Your task to perform on an android device: Open Chrome and go to settings Image 0: 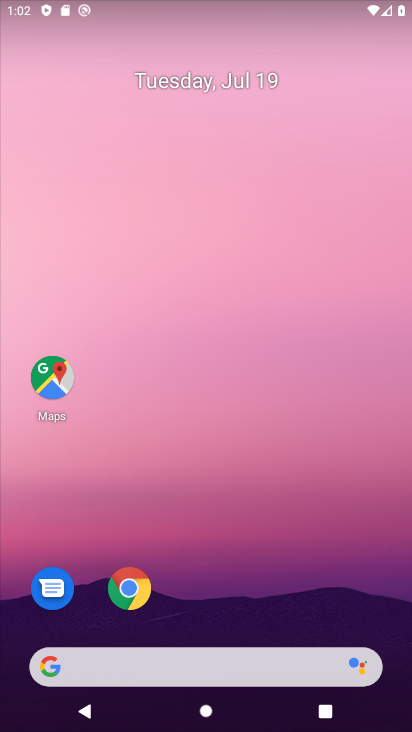
Step 0: drag from (208, 628) to (157, 96)
Your task to perform on an android device: Open Chrome and go to settings Image 1: 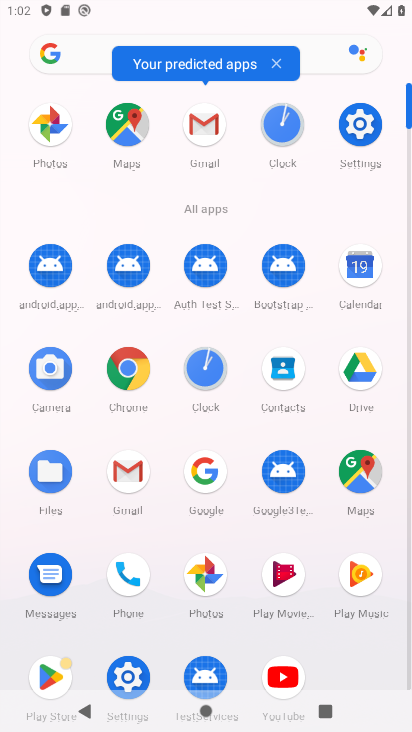
Step 1: click (125, 369)
Your task to perform on an android device: Open Chrome and go to settings Image 2: 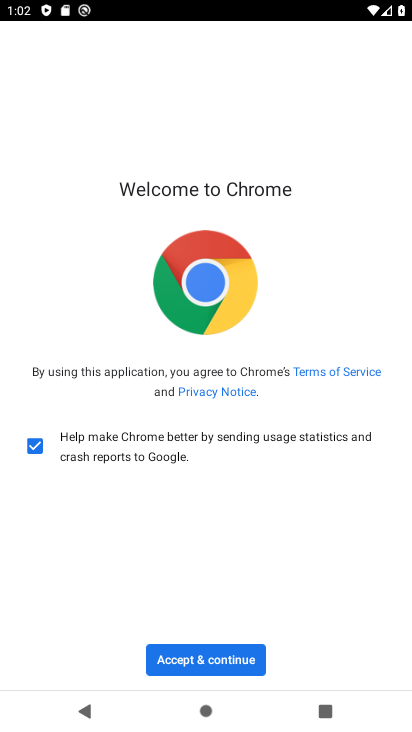
Step 2: click (230, 667)
Your task to perform on an android device: Open Chrome and go to settings Image 3: 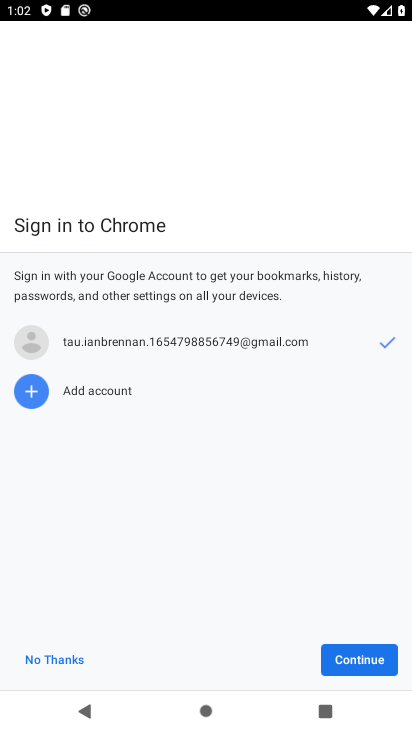
Step 3: click (366, 665)
Your task to perform on an android device: Open Chrome and go to settings Image 4: 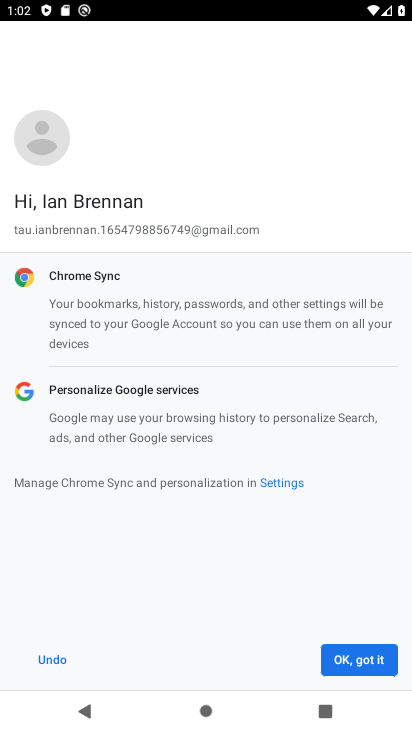
Step 4: click (366, 665)
Your task to perform on an android device: Open Chrome and go to settings Image 5: 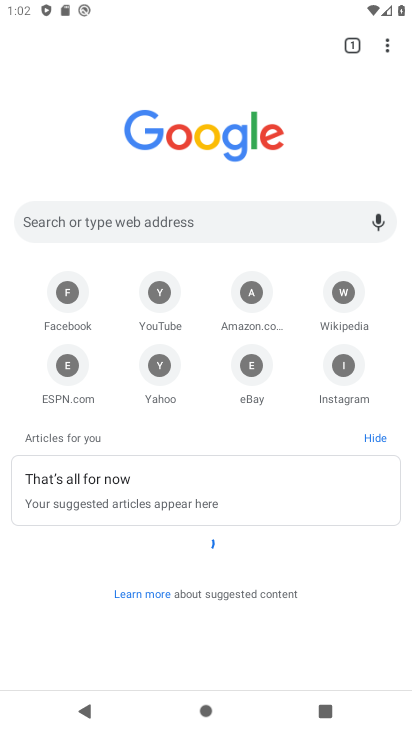
Step 5: click (393, 41)
Your task to perform on an android device: Open Chrome and go to settings Image 6: 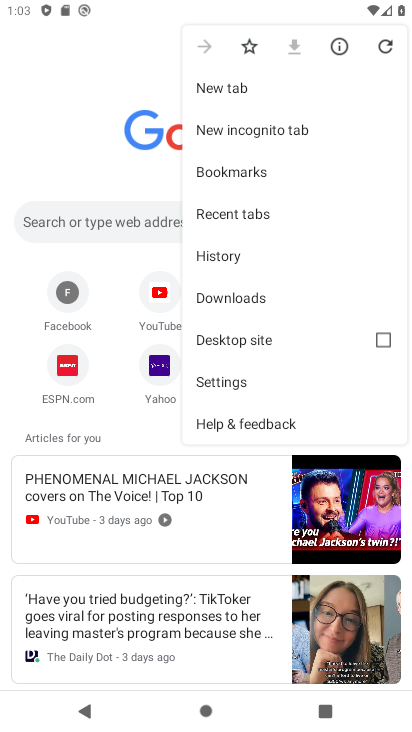
Step 6: click (264, 378)
Your task to perform on an android device: Open Chrome and go to settings Image 7: 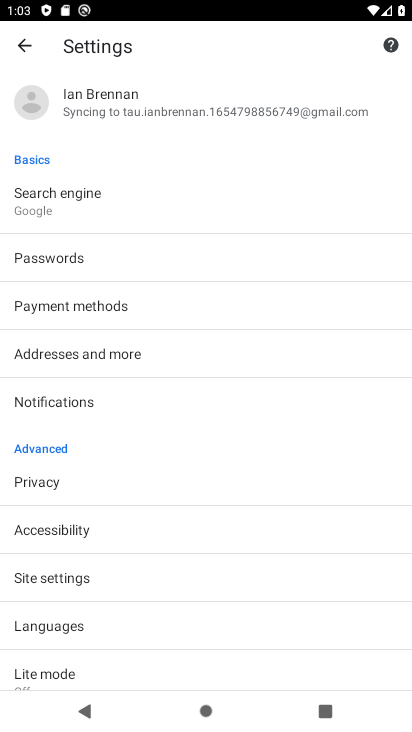
Step 7: task complete